Your task to perform on an android device: turn vacation reply on in the gmail app Image 0: 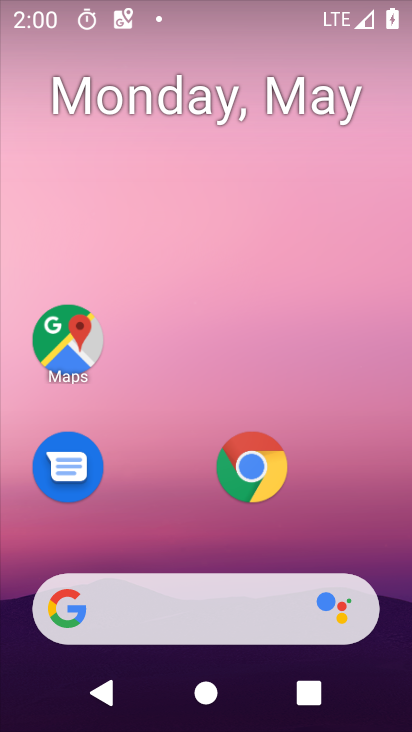
Step 0: drag from (177, 526) to (291, 122)
Your task to perform on an android device: turn vacation reply on in the gmail app Image 1: 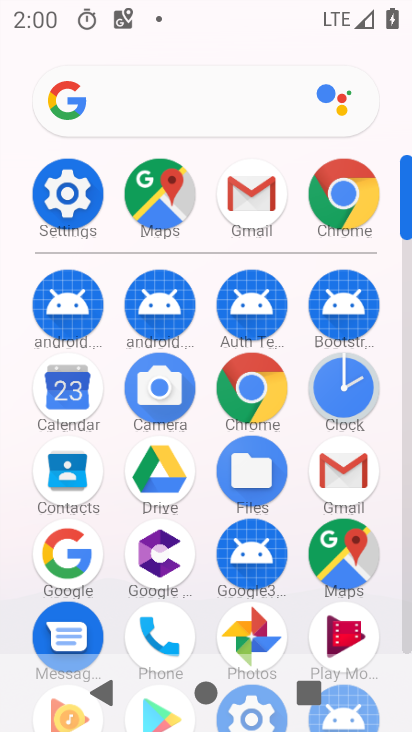
Step 1: click (336, 473)
Your task to perform on an android device: turn vacation reply on in the gmail app Image 2: 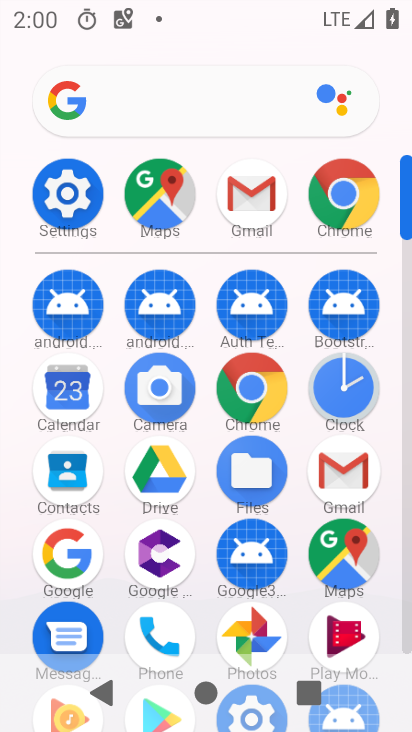
Step 2: click (336, 473)
Your task to perform on an android device: turn vacation reply on in the gmail app Image 3: 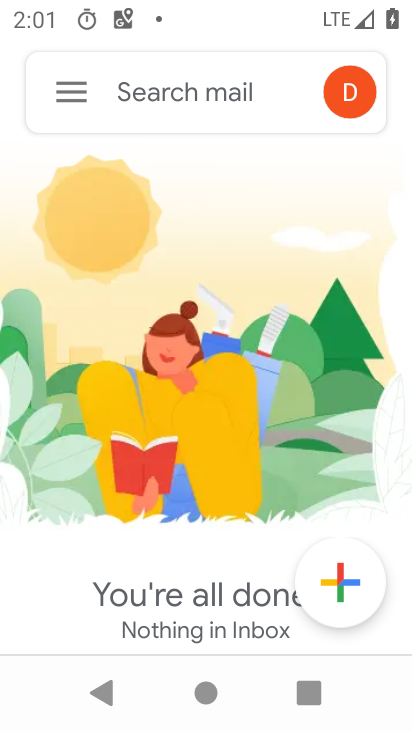
Step 3: click (61, 101)
Your task to perform on an android device: turn vacation reply on in the gmail app Image 4: 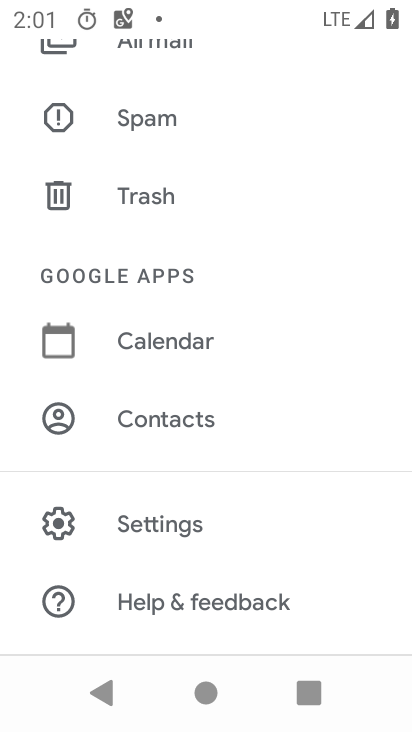
Step 4: click (160, 522)
Your task to perform on an android device: turn vacation reply on in the gmail app Image 5: 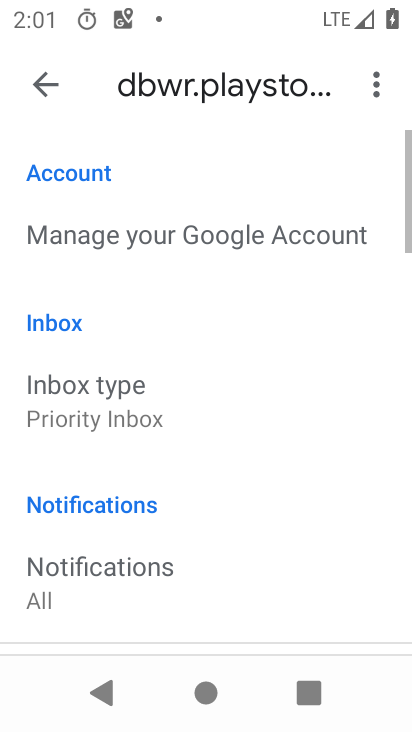
Step 5: drag from (259, 536) to (252, 276)
Your task to perform on an android device: turn vacation reply on in the gmail app Image 6: 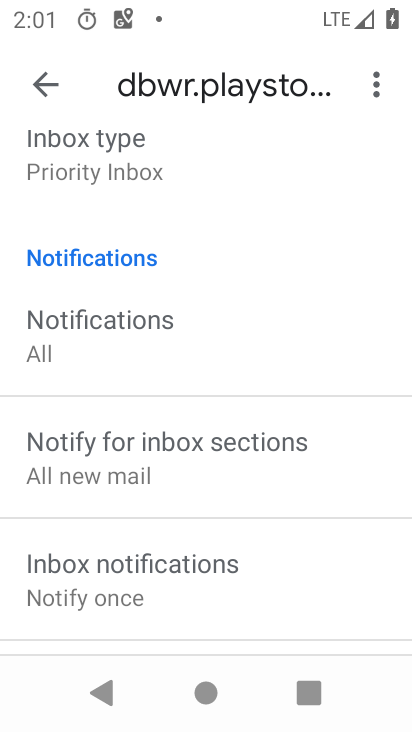
Step 6: drag from (177, 560) to (286, 127)
Your task to perform on an android device: turn vacation reply on in the gmail app Image 7: 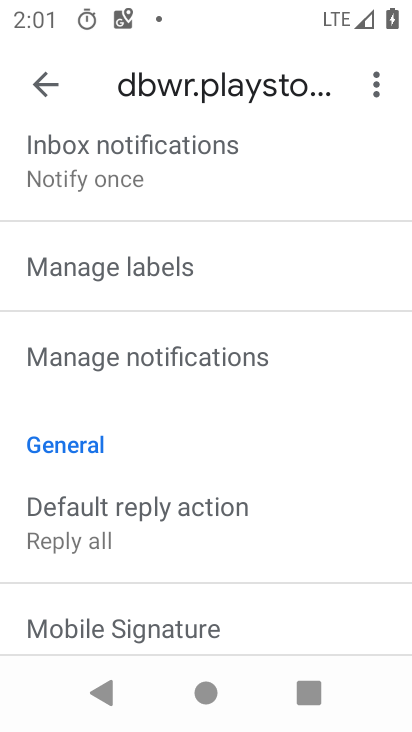
Step 7: drag from (154, 586) to (222, 250)
Your task to perform on an android device: turn vacation reply on in the gmail app Image 8: 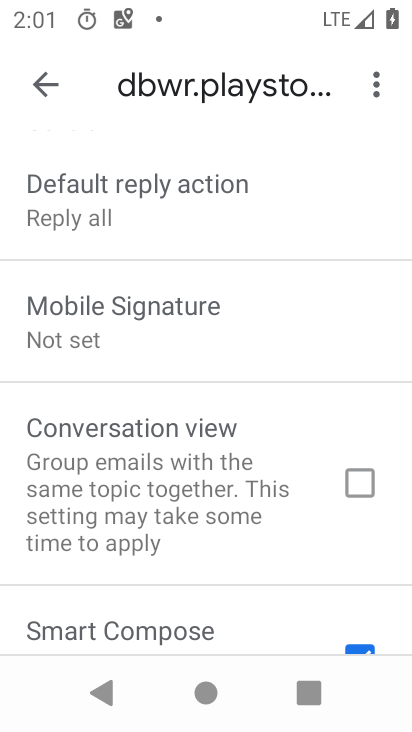
Step 8: drag from (215, 242) to (287, 635)
Your task to perform on an android device: turn vacation reply on in the gmail app Image 9: 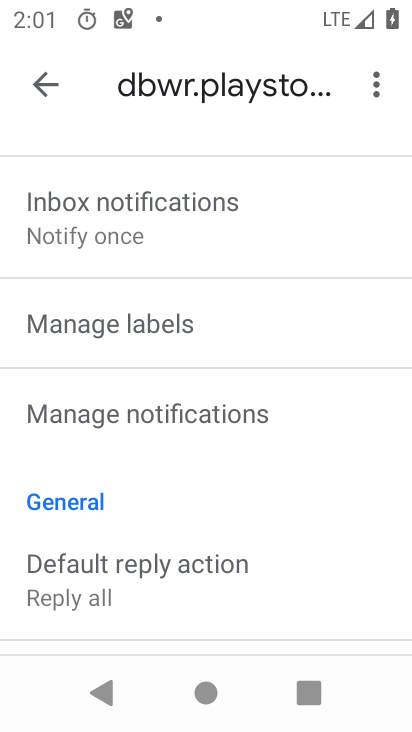
Step 9: drag from (210, 265) to (236, 661)
Your task to perform on an android device: turn vacation reply on in the gmail app Image 10: 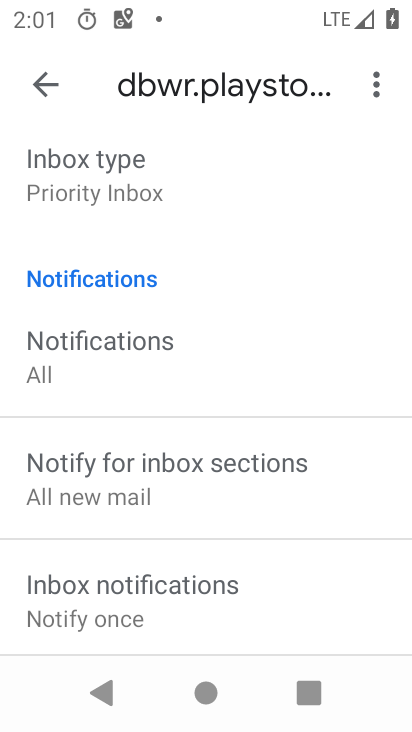
Step 10: drag from (174, 220) to (263, 629)
Your task to perform on an android device: turn vacation reply on in the gmail app Image 11: 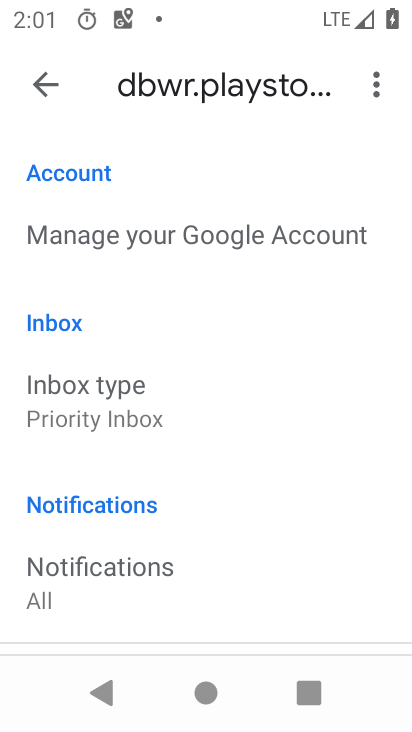
Step 11: drag from (149, 606) to (202, 231)
Your task to perform on an android device: turn vacation reply on in the gmail app Image 12: 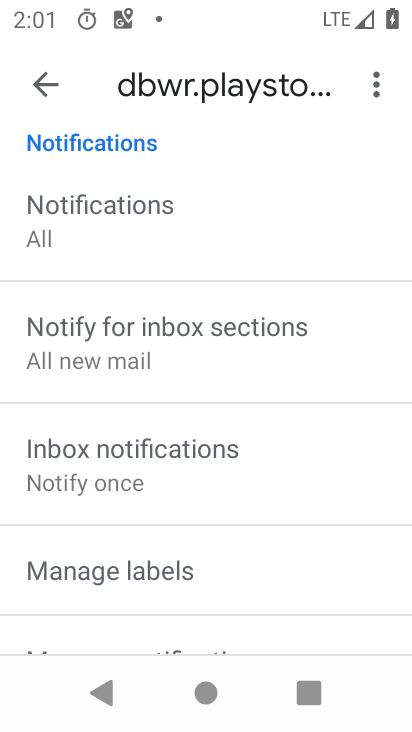
Step 12: drag from (253, 526) to (321, 213)
Your task to perform on an android device: turn vacation reply on in the gmail app Image 13: 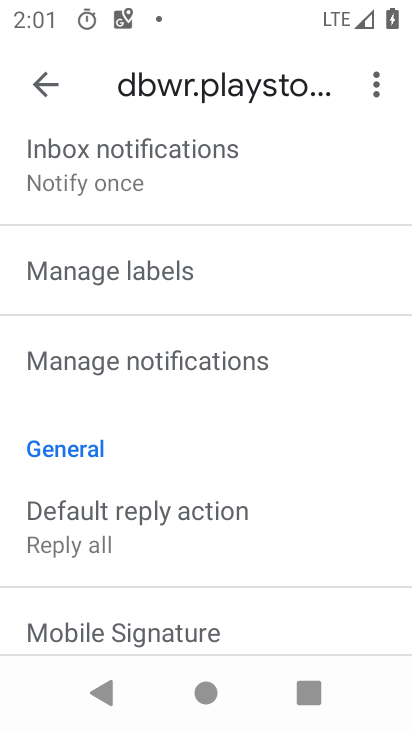
Step 13: drag from (184, 579) to (307, 111)
Your task to perform on an android device: turn vacation reply on in the gmail app Image 14: 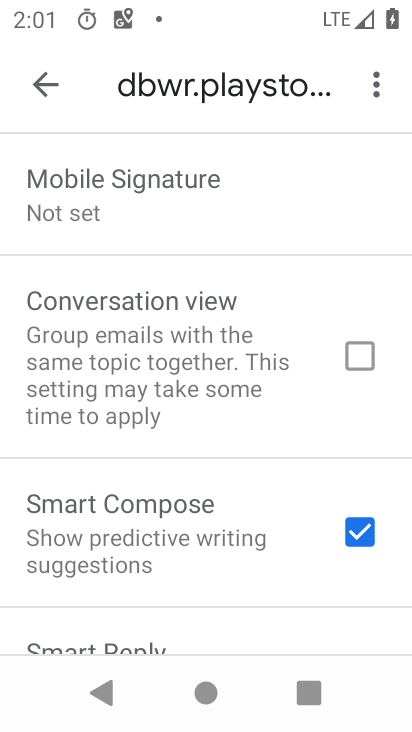
Step 14: drag from (210, 555) to (256, 227)
Your task to perform on an android device: turn vacation reply on in the gmail app Image 15: 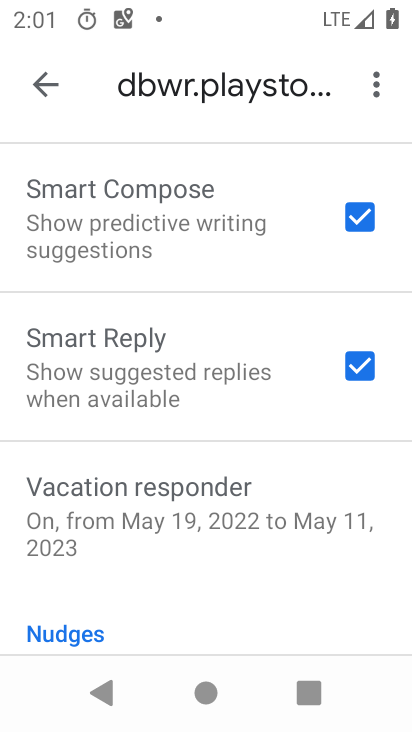
Step 15: click (181, 504)
Your task to perform on an android device: turn vacation reply on in the gmail app Image 16: 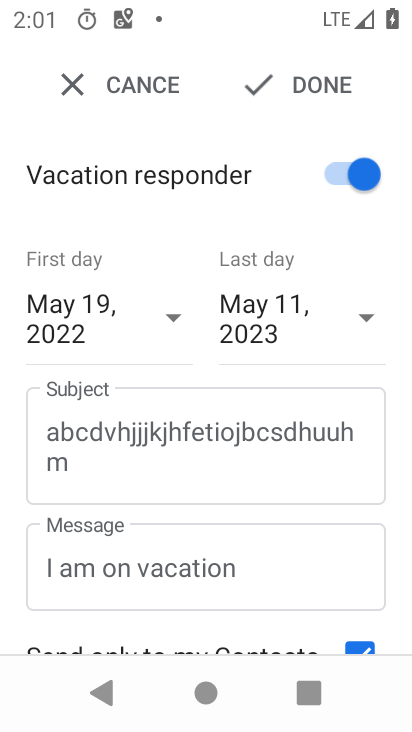
Step 16: click (314, 93)
Your task to perform on an android device: turn vacation reply on in the gmail app Image 17: 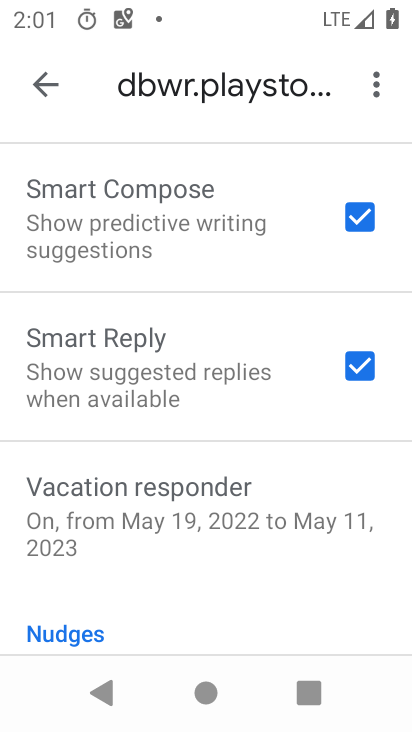
Step 17: task complete